Your task to perform on an android device: Go to privacy settings Image 0: 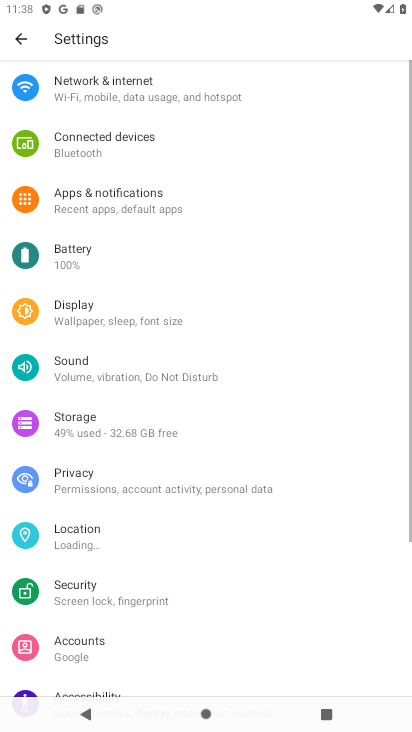
Step 0: press home button
Your task to perform on an android device: Go to privacy settings Image 1: 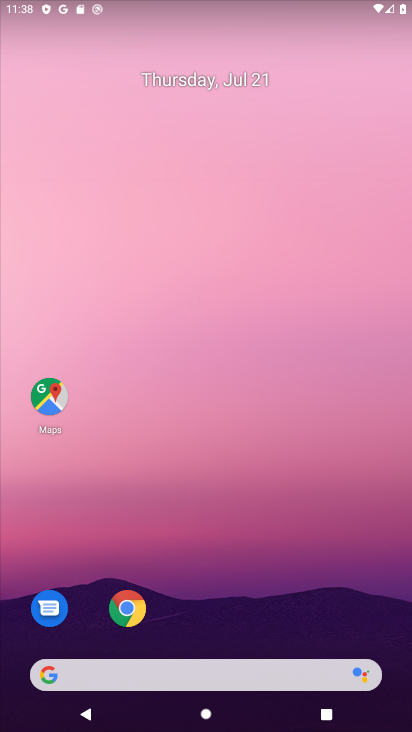
Step 1: drag from (210, 648) to (220, 126)
Your task to perform on an android device: Go to privacy settings Image 2: 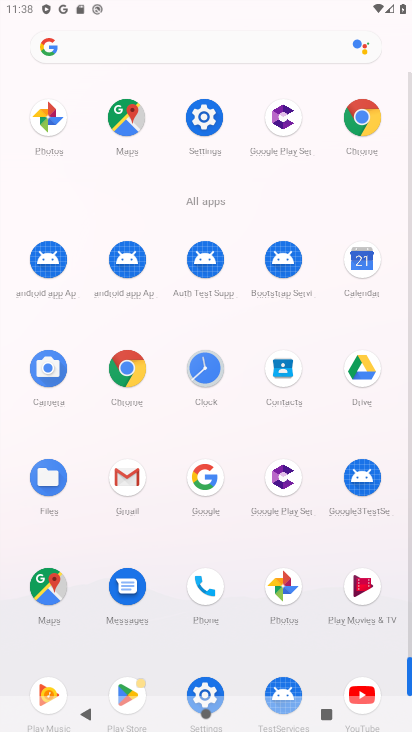
Step 2: click (203, 111)
Your task to perform on an android device: Go to privacy settings Image 3: 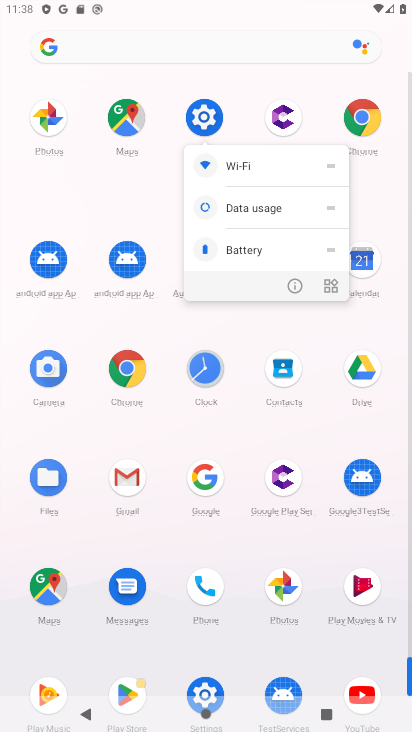
Step 3: click (205, 112)
Your task to perform on an android device: Go to privacy settings Image 4: 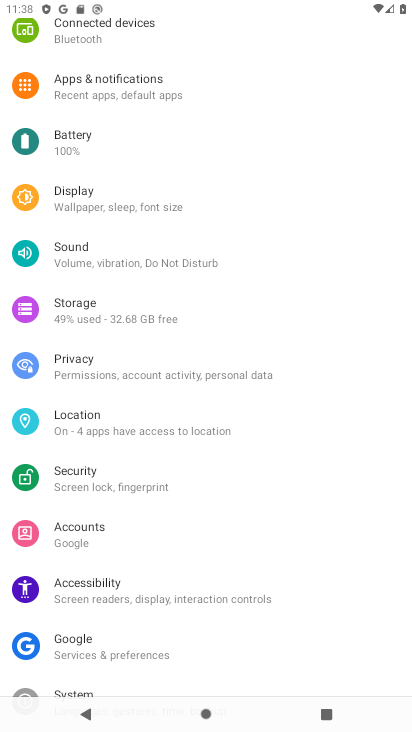
Step 4: click (101, 354)
Your task to perform on an android device: Go to privacy settings Image 5: 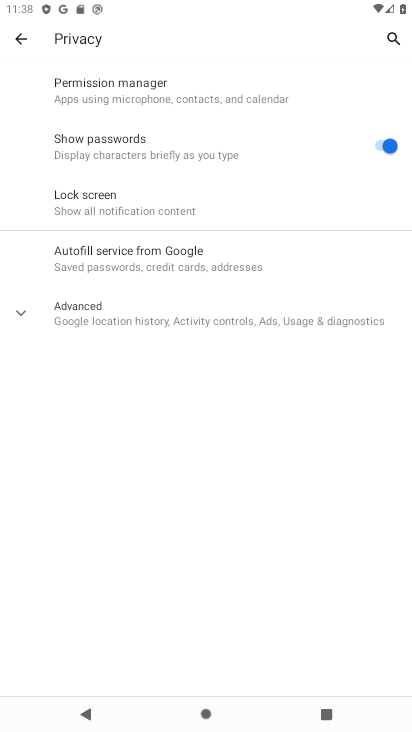
Step 5: click (14, 312)
Your task to perform on an android device: Go to privacy settings Image 6: 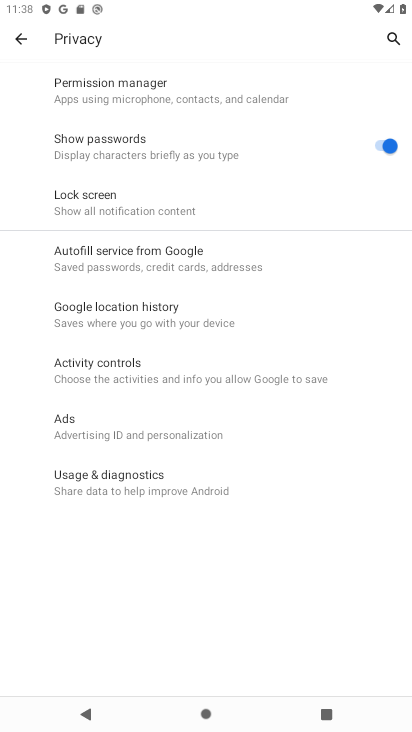
Step 6: task complete